Your task to perform on an android device: turn off sleep mode Image 0: 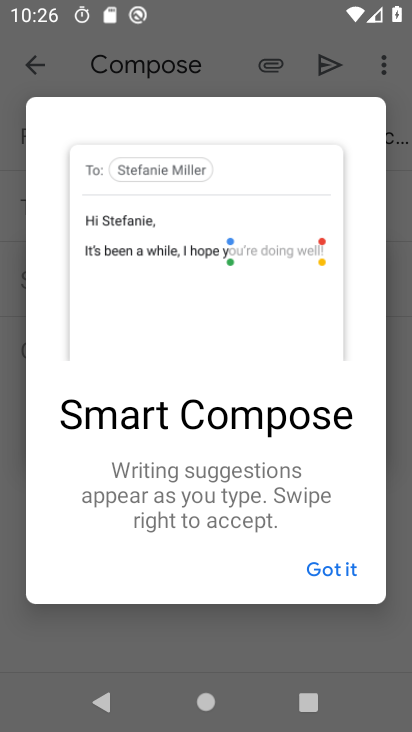
Step 0: press home button
Your task to perform on an android device: turn off sleep mode Image 1: 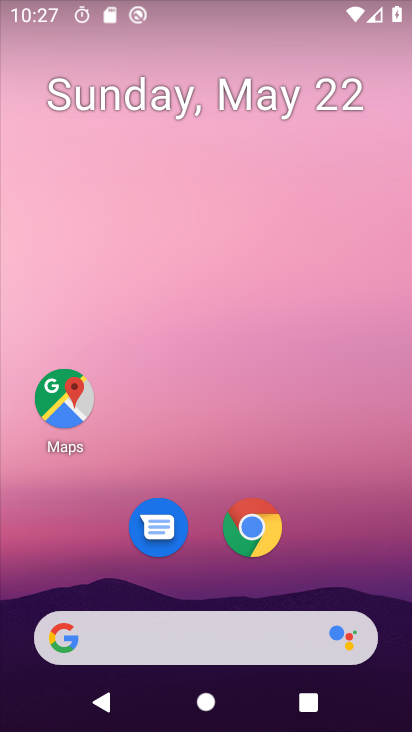
Step 1: drag from (220, 612) to (222, 167)
Your task to perform on an android device: turn off sleep mode Image 2: 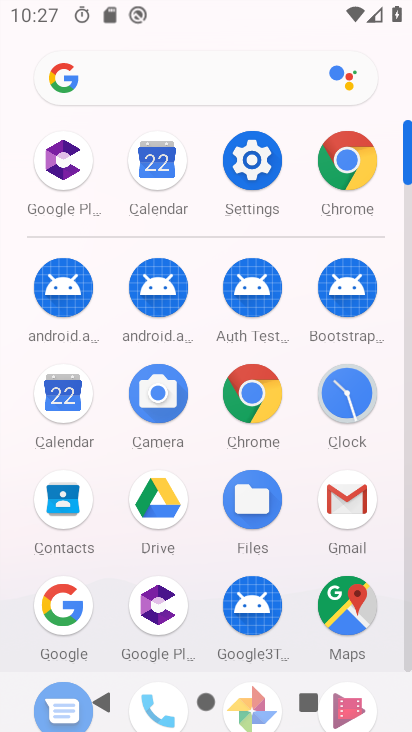
Step 2: drag from (243, 230) to (260, 158)
Your task to perform on an android device: turn off sleep mode Image 3: 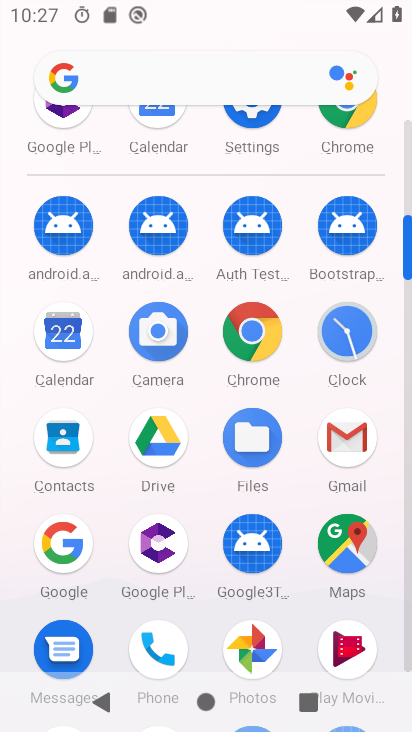
Step 3: drag from (226, 584) to (266, 195)
Your task to perform on an android device: turn off sleep mode Image 4: 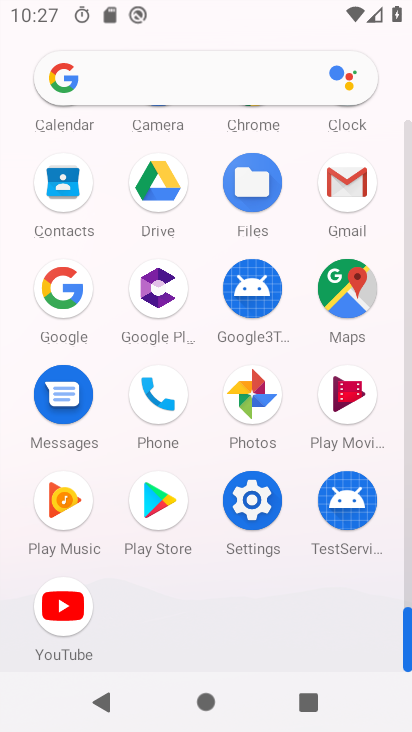
Step 4: click (263, 502)
Your task to perform on an android device: turn off sleep mode Image 5: 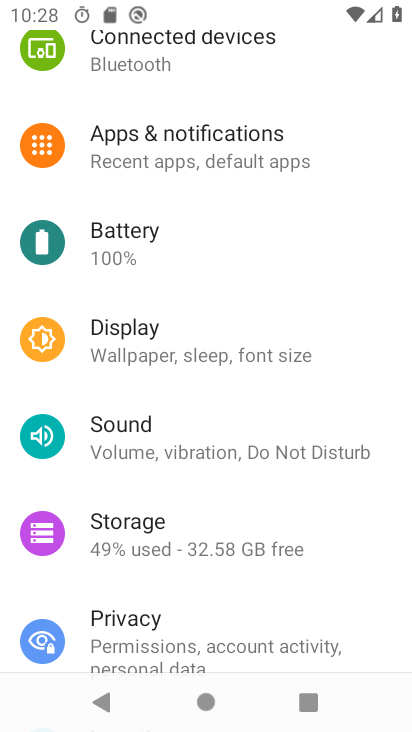
Step 5: click (158, 322)
Your task to perform on an android device: turn off sleep mode Image 6: 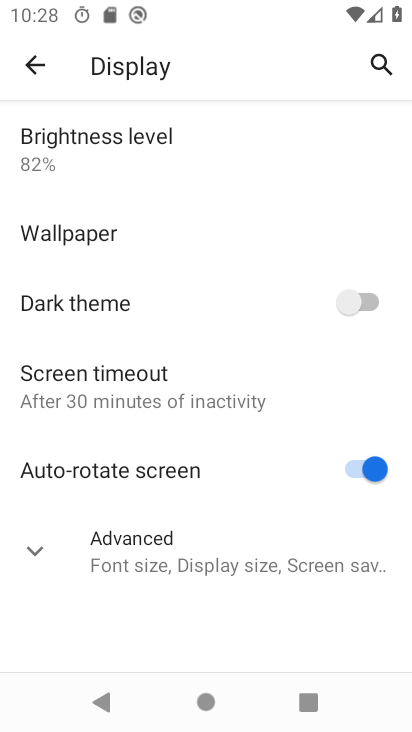
Step 6: click (178, 545)
Your task to perform on an android device: turn off sleep mode Image 7: 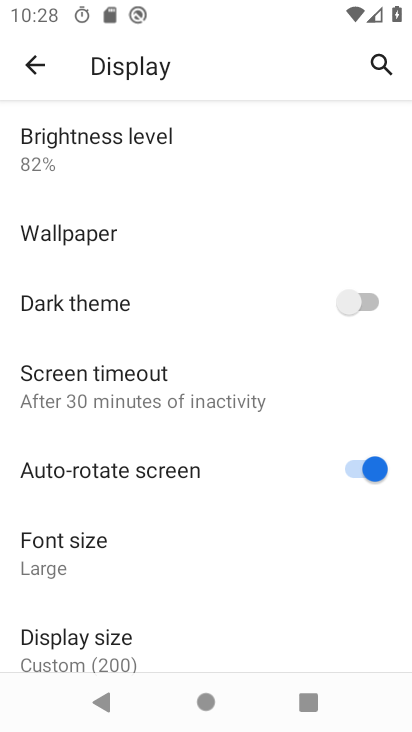
Step 7: task complete